Your task to perform on an android device: open chrome privacy settings Image 0: 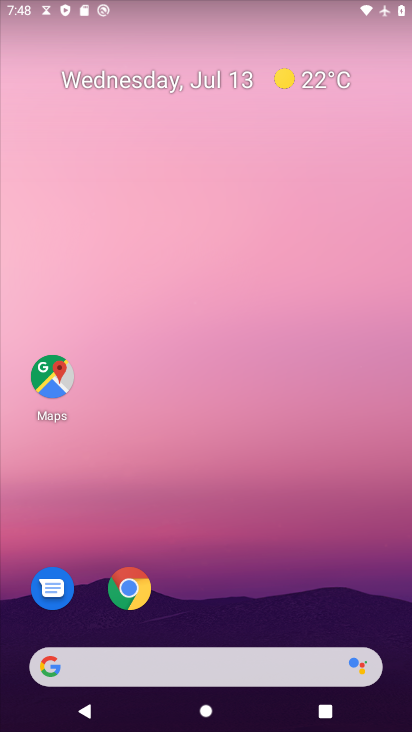
Step 0: drag from (309, 634) to (300, 262)
Your task to perform on an android device: open chrome privacy settings Image 1: 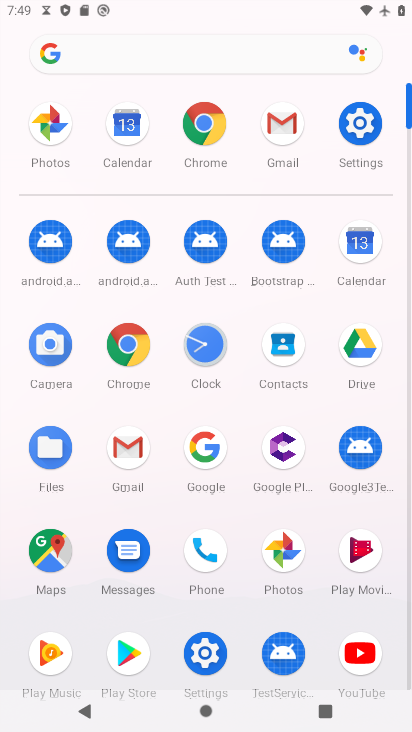
Step 1: click (207, 115)
Your task to perform on an android device: open chrome privacy settings Image 2: 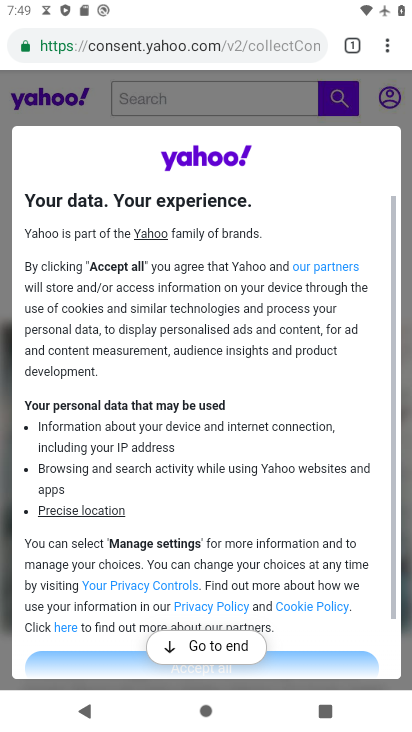
Step 2: click (394, 46)
Your task to perform on an android device: open chrome privacy settings Image 3: 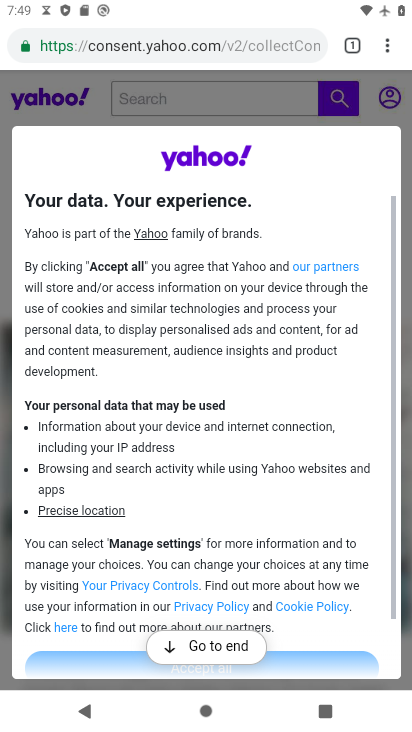
Step 3: click (394, 46)
Your task to perform on an android device: open chrome privacy settings Image 4: 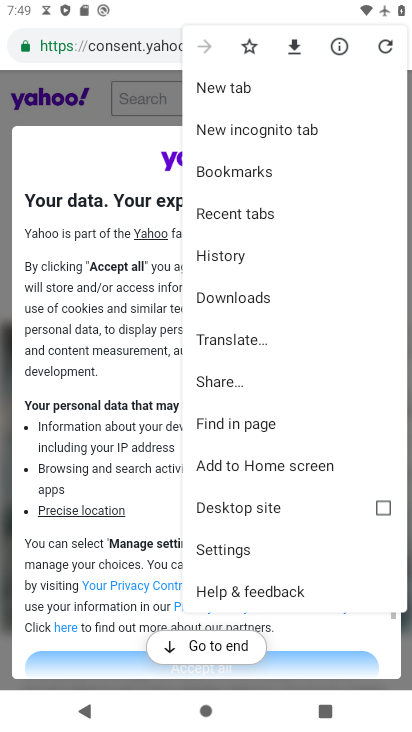
Step 4: click (240, 536)
Your task to perform on an android device: open chrome privacy settings Image 5: 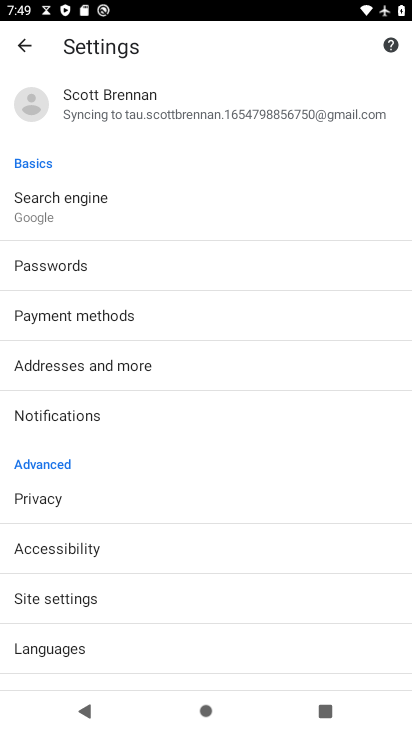
Step 5: click (85, 487)
Your task to perform on an android device: open chrome privacy settings Image 6: 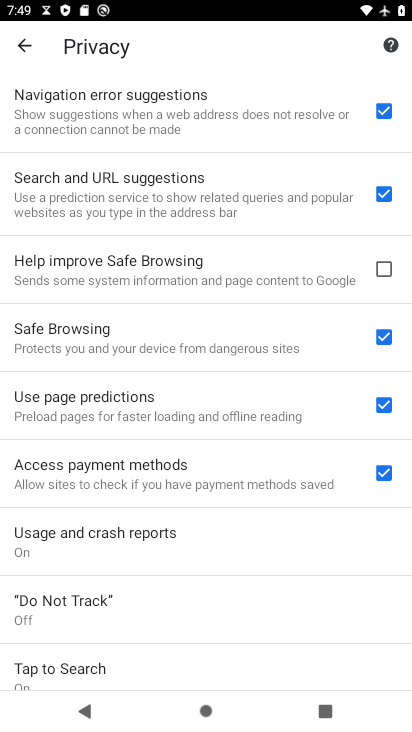
Step 6: task complete